Your task to perform on an android device: What is the news today? Image 0: 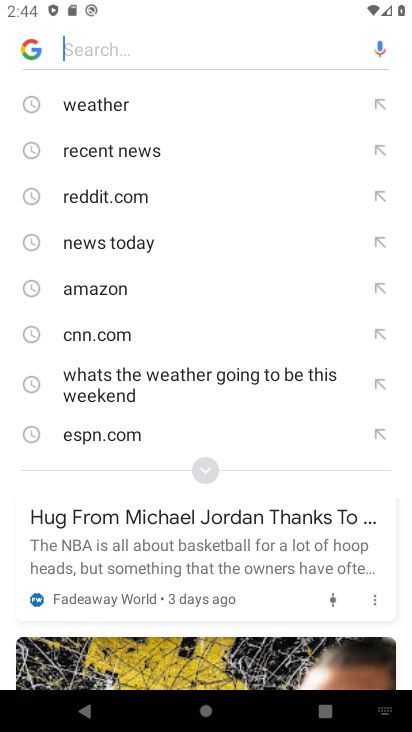
Step 0: type "what is the news today?"
Your task to perform on an android device: What is the news today? Image 1: 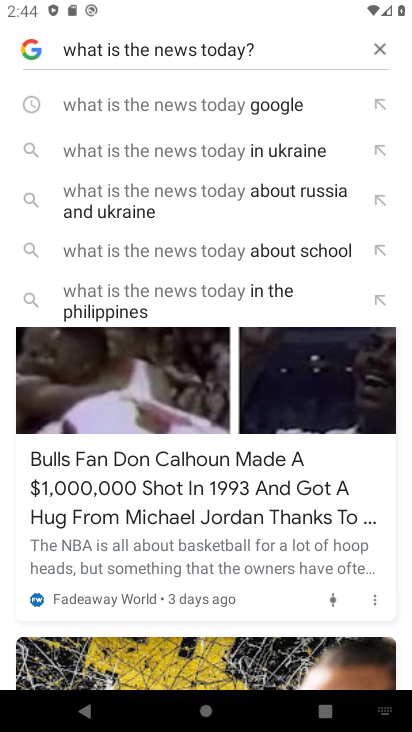
Step 1: click (238, 110)
Your task to perform on an android device: What is the news today? Image 2: 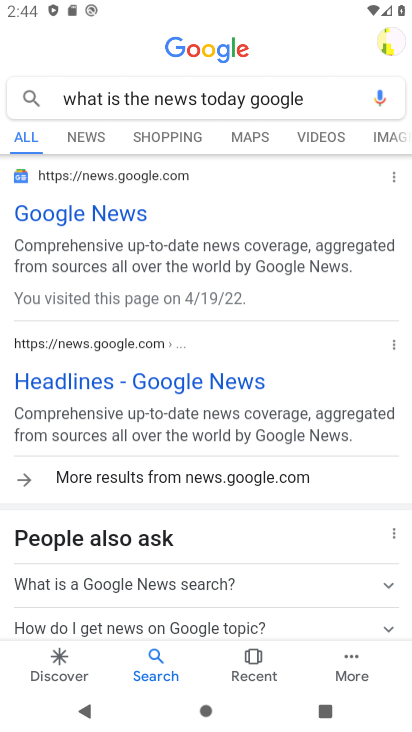
Step 2: click (83, 134)
Your task to perform on an android device: What is the news today? Image 3: 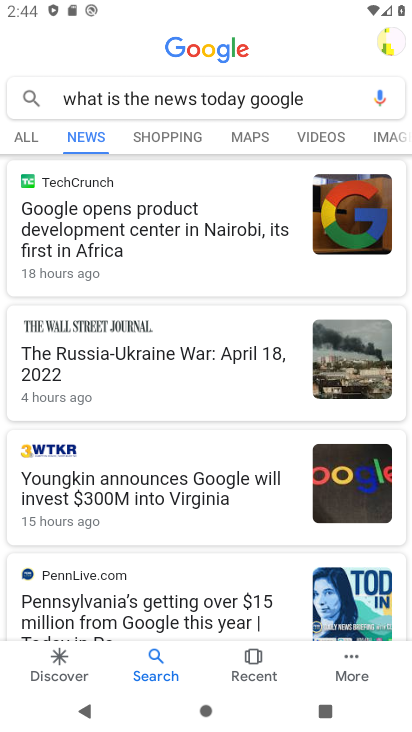
Step 3: task complete